Your task to perform on an android device: Open ESPN.com Image 0: 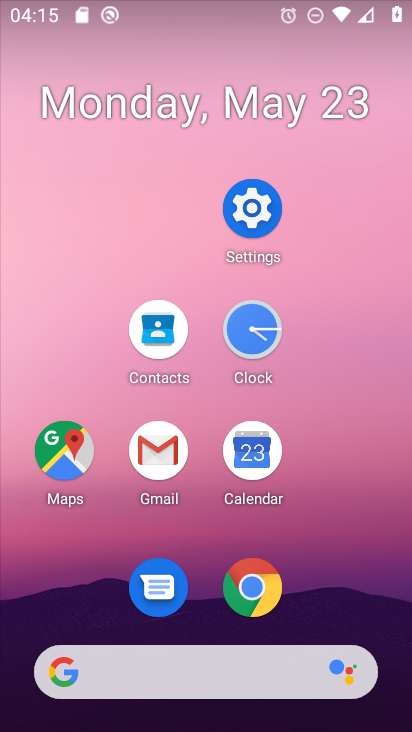
Step 0: click (201, 664)
Your task to perform on an android device: Open ESPN.com Image 1: 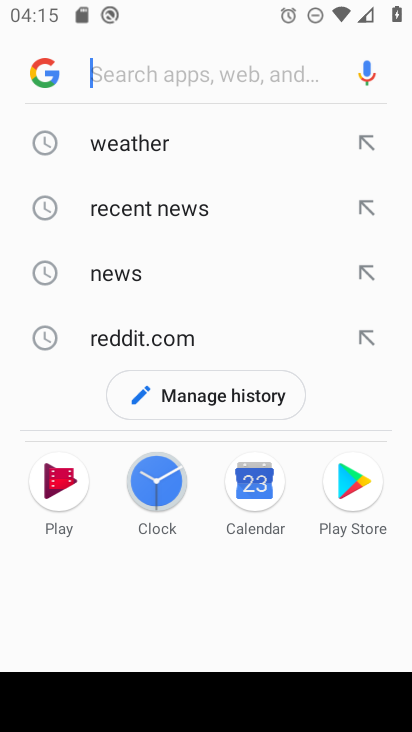
Step 1: type "espn.com"
Your task to perform on an android device: Open ESPN.com Image 2: 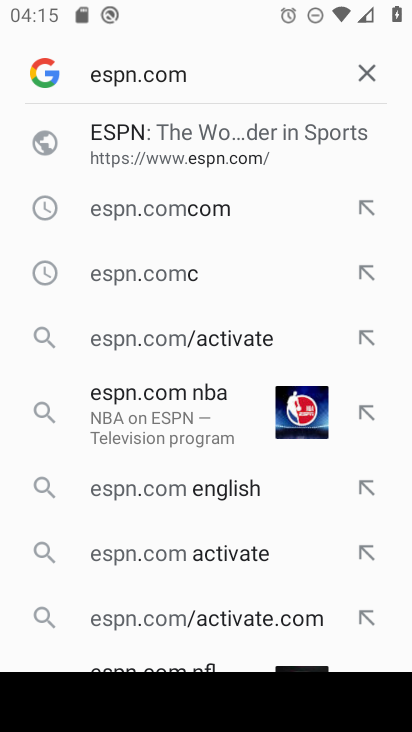
Step 2: click (146, 135)
Your task to perform on an android device: Open ESPN.com Image 3: 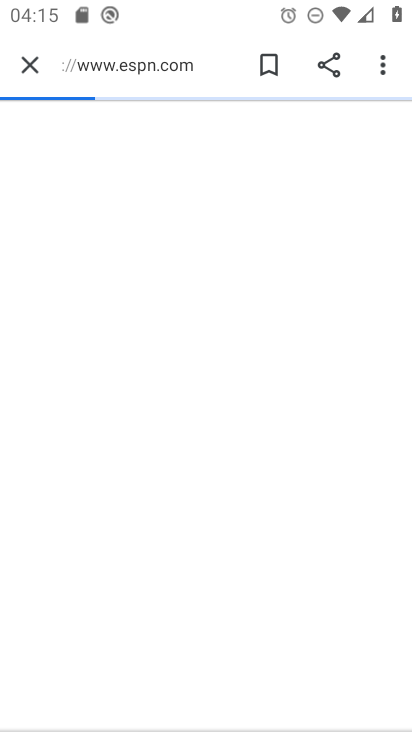
Step 3: task complete